Your task to perform on an android device: Do I have any events today? Image 0: 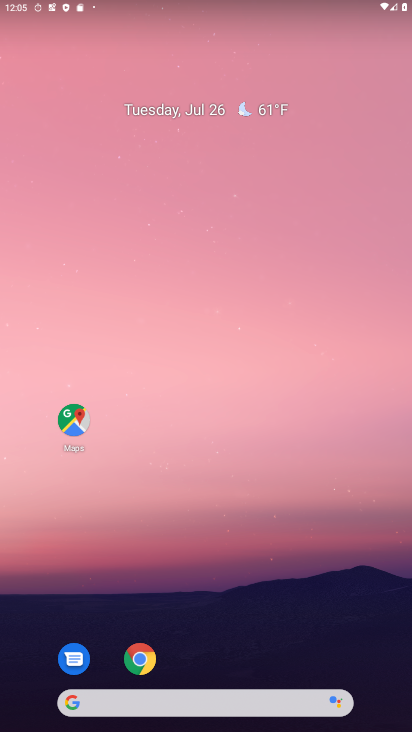
Step 0: drag from (164, 416) to (298, 37)
Your task to perform on an android device: Do I have any events today? Image 1: 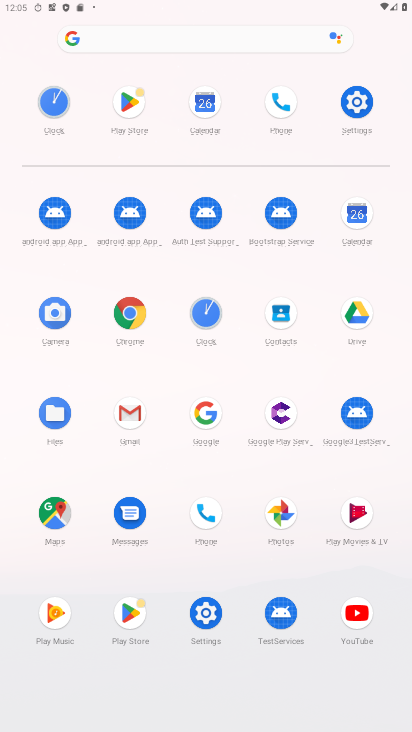
Step 1: click (355, 220)
Your task to perform on an android device: Do I have any events today? Image 2: 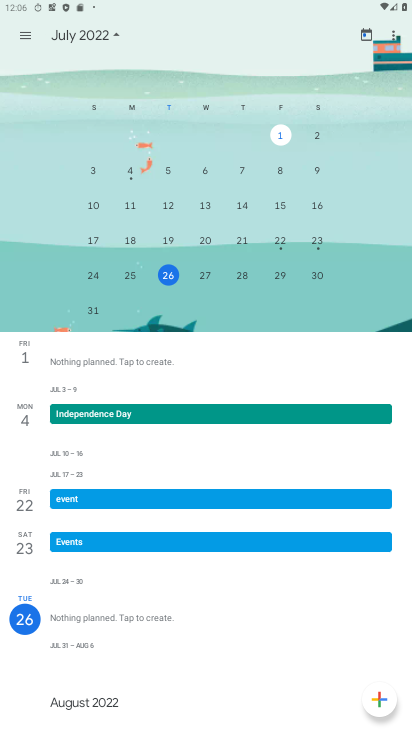
Step 2: task complete